Your task to perform on an android device: Open the web browser Image 0: 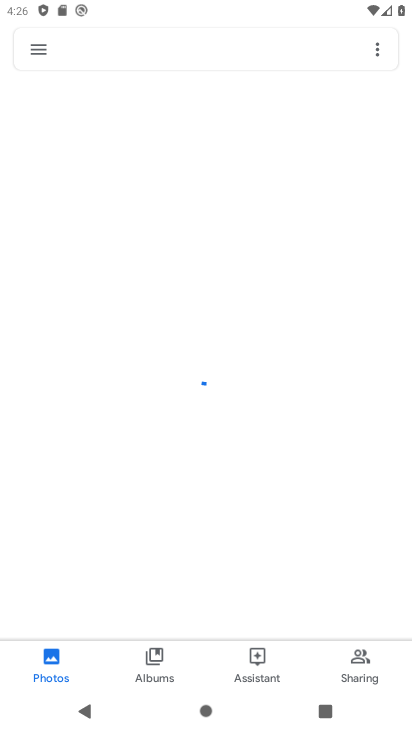
Step 0: press home button
Your task to perform on an android device: Open the web browser Image 1: 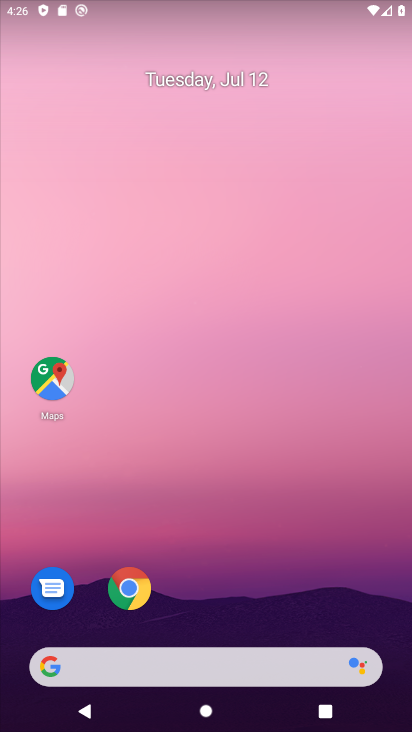
Step 1: click (130, 579)
Your task to perform on an android device: Open the web browser Image 2: 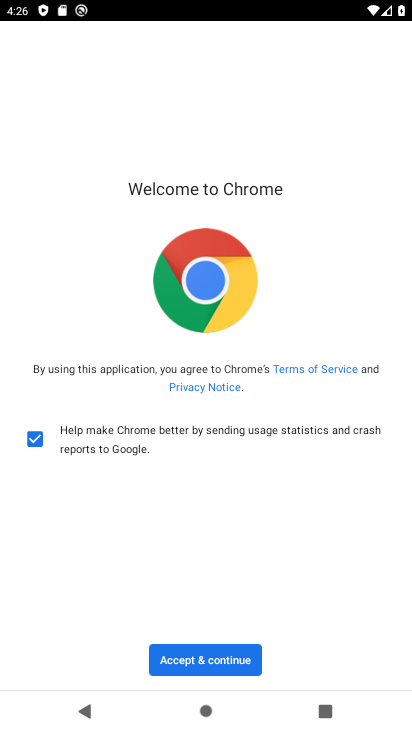
Step 2: click (211, 657)
Your task to perform on an android device: Open the web browser Image 3: 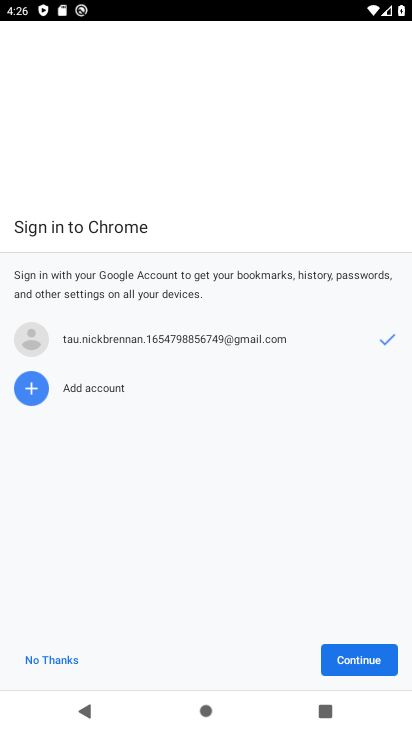
Step 3: click (365, 650)
Your task to perform on an android device: Open the web browser Image 4: 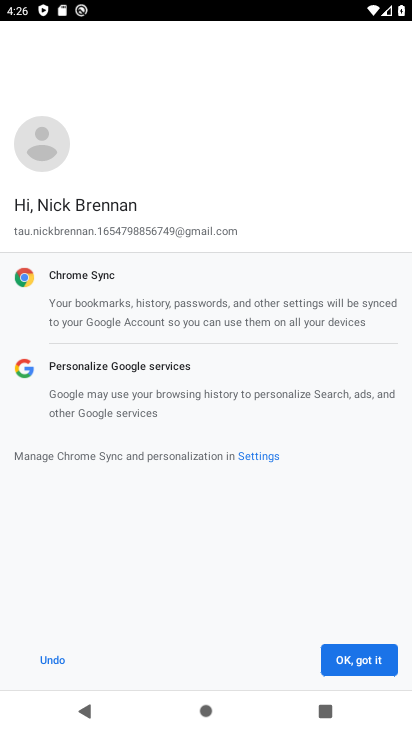
Step 4: click (368, 653)
Your task to perform on an android device: Open the web browser Image 5: 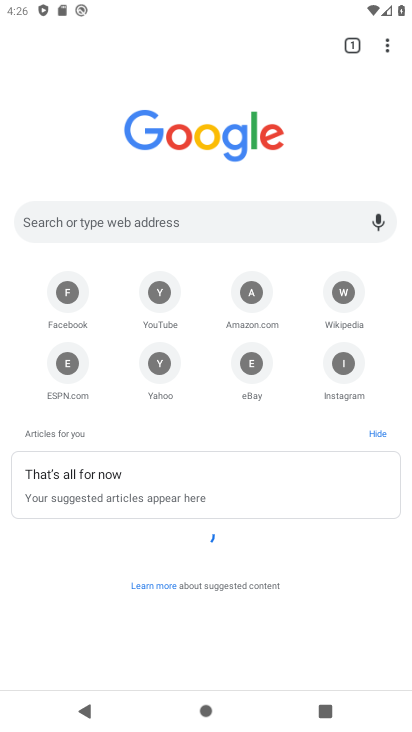
Step 5: task complete